Your task to perform on an android device: turn on bluetooth scan Image 0: 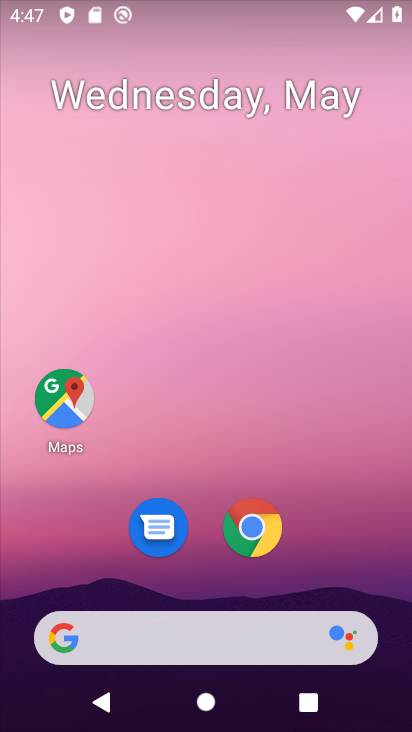
Step 0: drag from (233, 516) to (293, 12)
Your task to perform on an android device: turn on bluetooth scan Image 1: 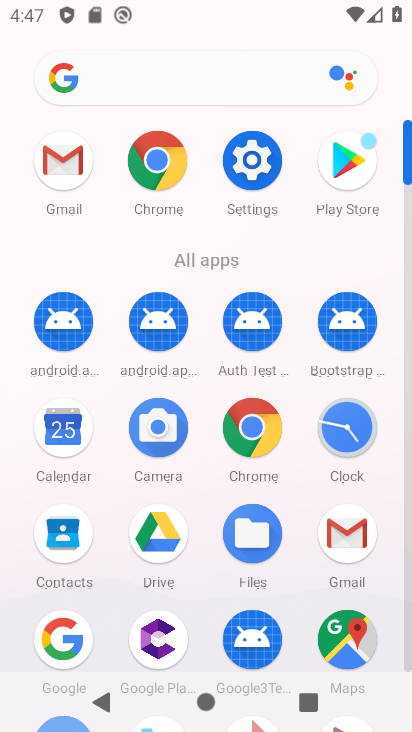
Step 1: click (245, 183)
Your task to perform on an android device: turn on bluetooth scan Image 2: 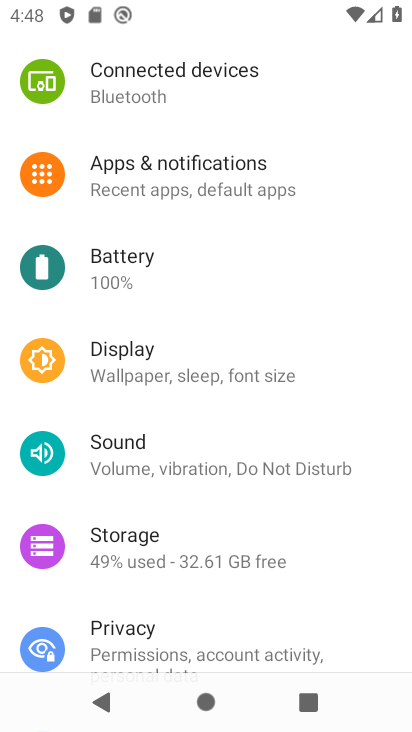
Step 2: drag from (232, 605) to (296, 149)
Your task to perform on an android device: turn on bluetooth scan Image 3: 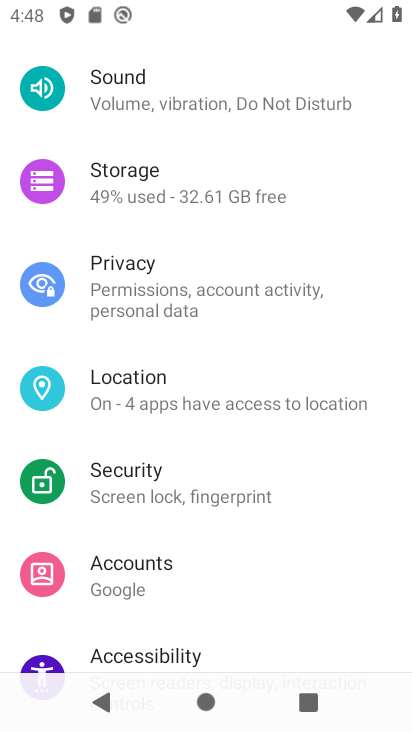
Step 3: click (159, 413)
Your task to perform on an android device: turn on bluetooth scan Image 4: 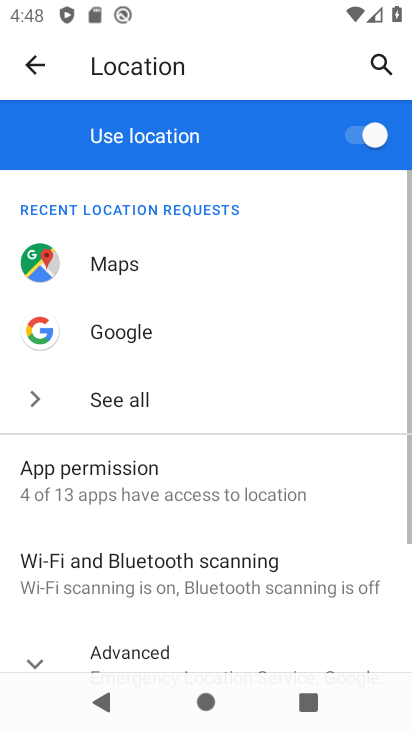
Step 4: click (169, 568)
Your task to perform on an android device: turn on bluetooth scan Image 5: 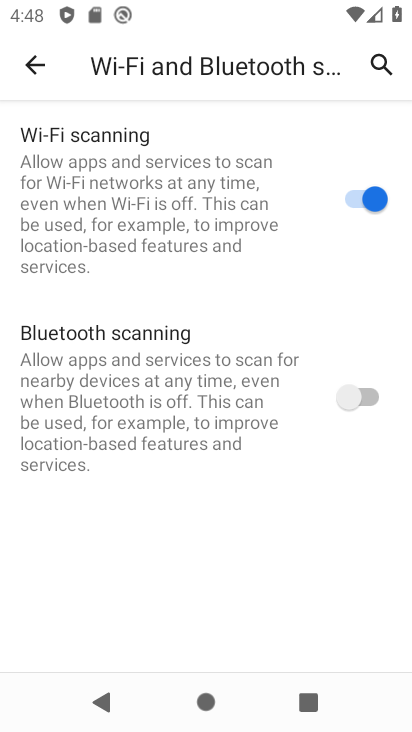
Step 5: click (368, 396)
Your task to perform on an android device: turn on bluetooth scan Image 6: 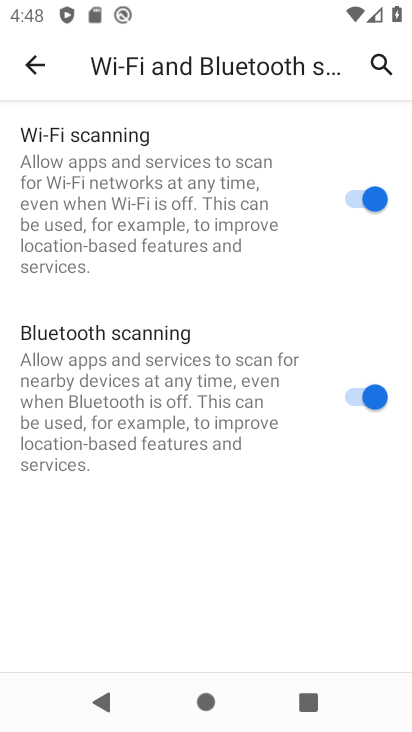
Step 6: task complete